Your task to perform on an android device: What is the recent news? Image 0: 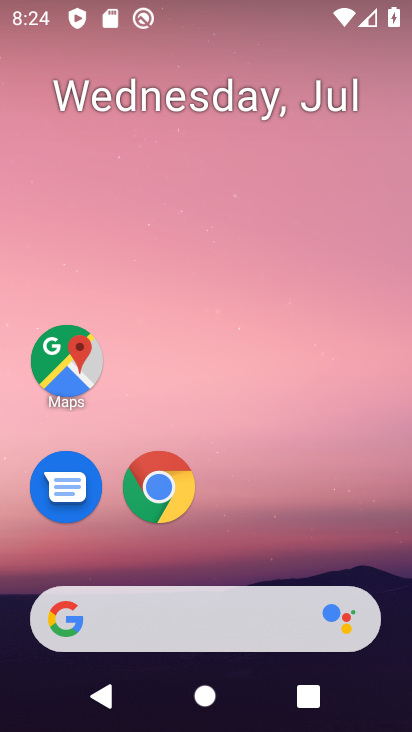
Step 0: drag from (65, 556) to (411, 553)
Your task to perform on an android device: What is the recent news? Image 1: 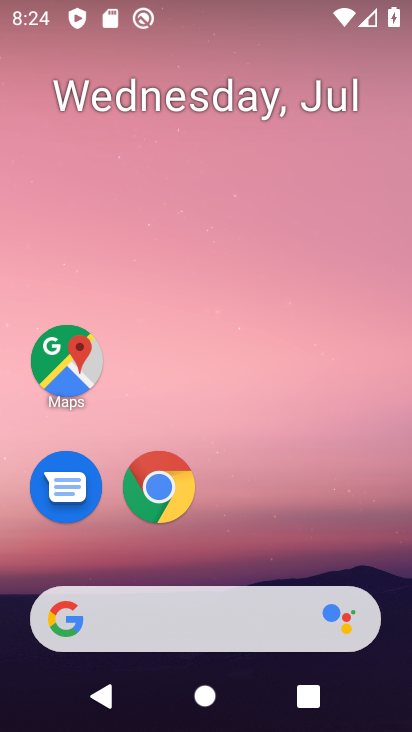
Step 1: task complete